Your task to perform on an android device: change the clock style Image 0: 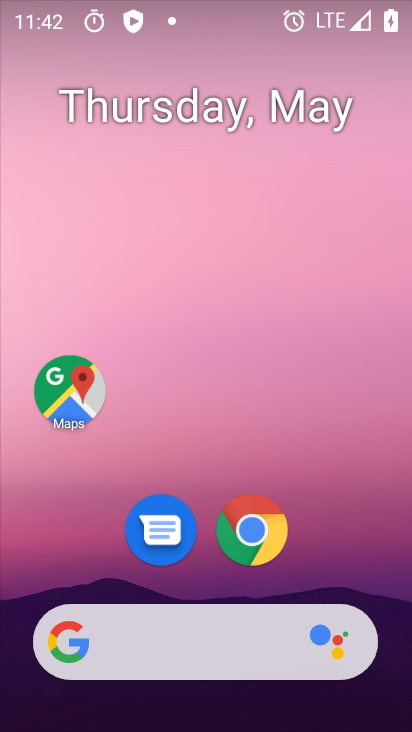
Step 0: drag from (320, 563) to (353, 145)
Your task to perform on an android device: change the clock style Image 1: 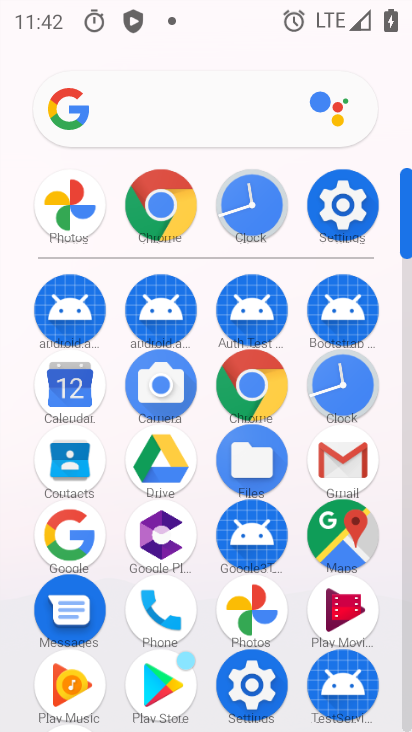
Step 1: click (363, 385)
Your task to perform on an android device: change the clock style Image 2: 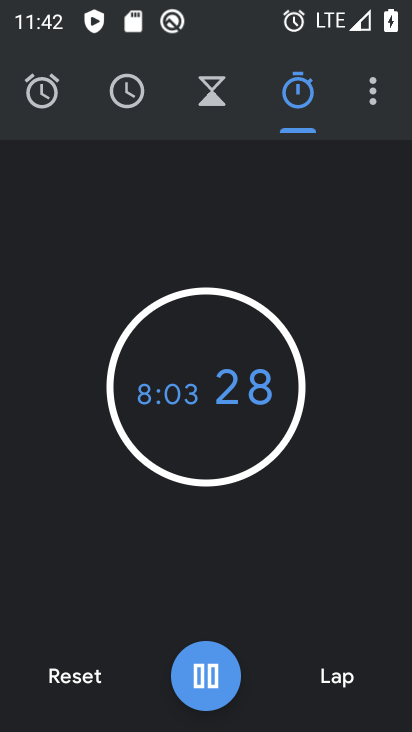
Step 2: click (381, 94)
Your task to perform on an android device: change the clock style Image 3: 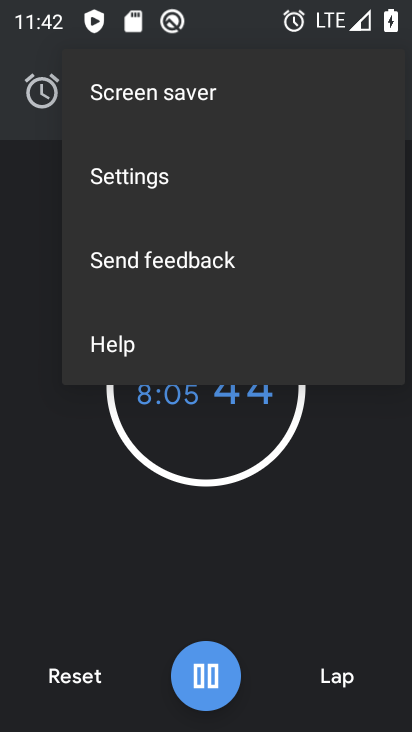
Step 3: click (200, 185)
Your task to perform on an android device: change the clock style Image 4: 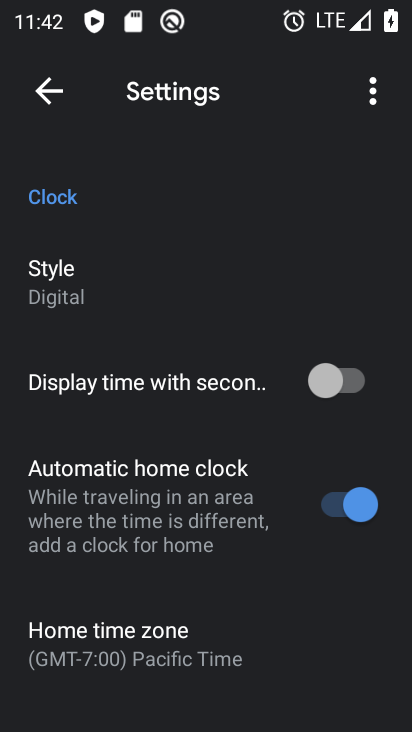
Step 4: click (83, 297)
Your task to perform on an android device: change the clock style Image 5: 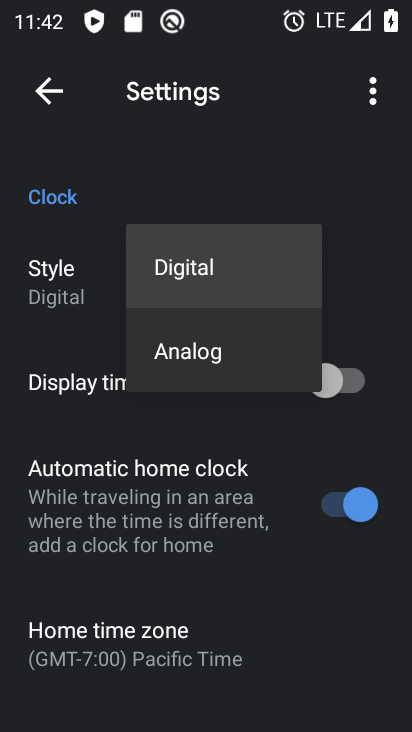
Step 5: click (199, 335)
Your task to perform on an android device: change the clock style Image 6: 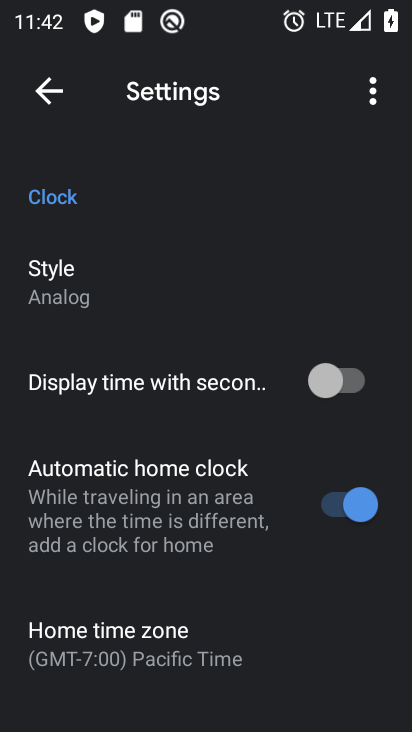
Step 6: task complete